Your task to perform on an android device: find photos in the google photos app Image 0: 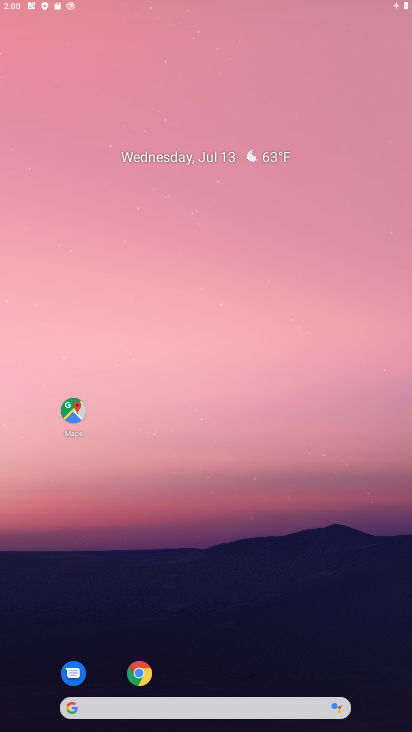
Step 0: drag from (253, 631) to (246, 424)
Your task to perform on an android device: find photos in the google photos app Image 1: 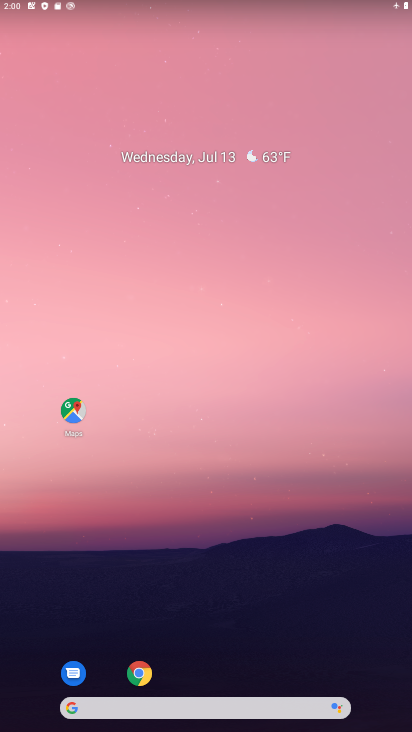
Step 1: drag from (234, 598) to (236, 312)
Your task to perform on an android device: find photos in the google photos app Image 2: 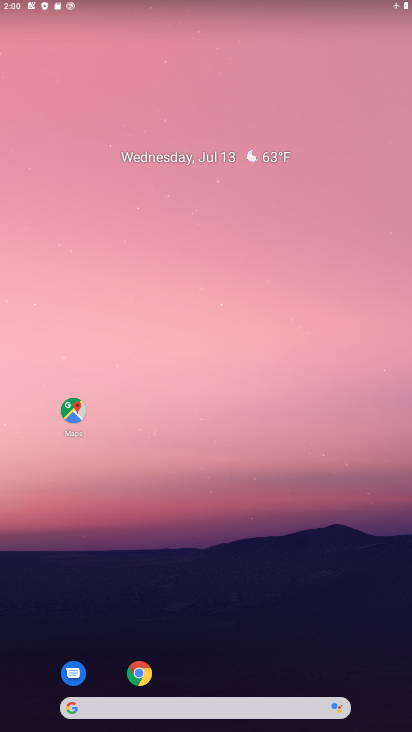
Step 2: drag from (244, 651) to (249, 253)
Your task to perform on an android device: find photos in the google photos app Image 3: 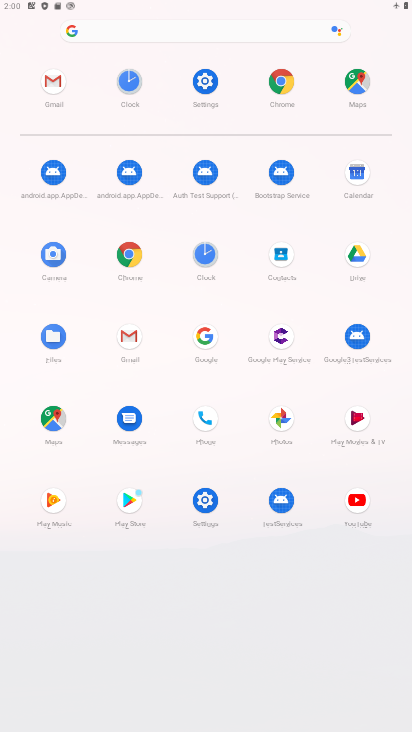
Step 3: click (278, 417)
Your task to perform on an android device: find photos in the google photos app Image 4: 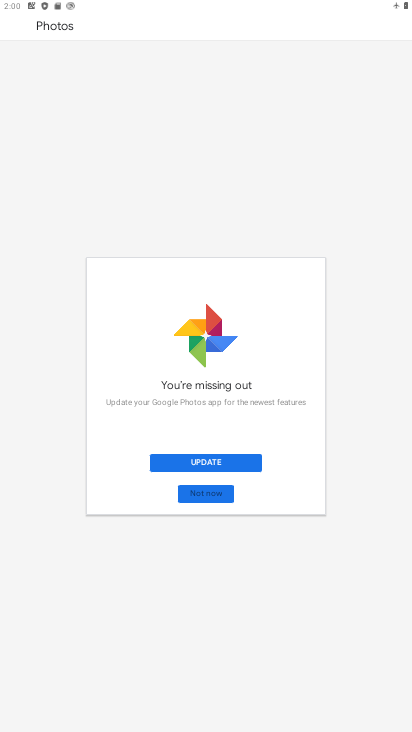
Step 4: click (200, 485)
Your task to perform on an android device: find photos in the google photos app Image 5: 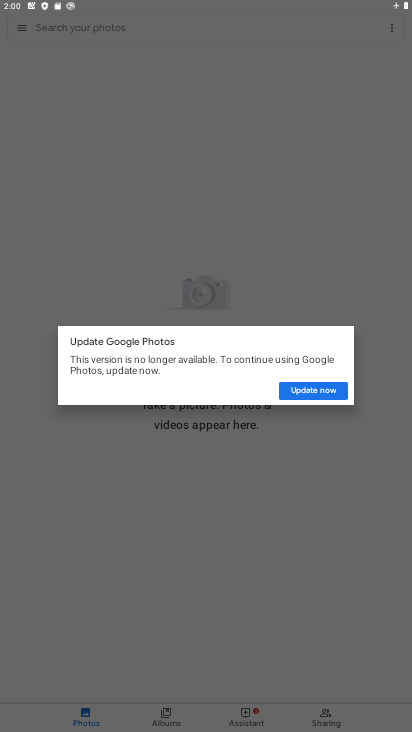
Step 5: click (301, 394)
Your task to perform on an android device: find photos in the google photos app Image 6: 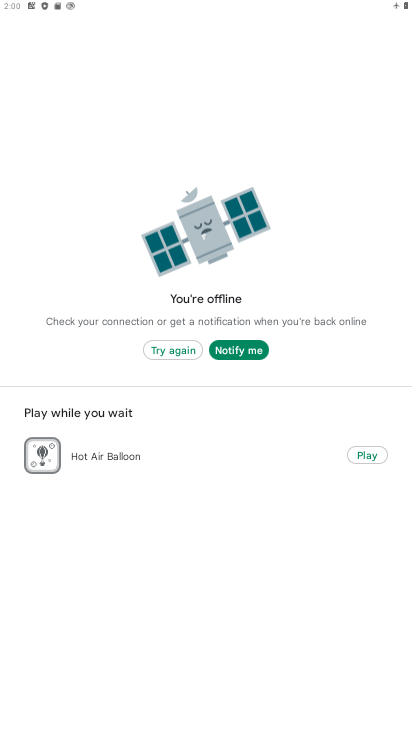
Step 6: press back button
Your task to perform on an android device: find photos in the google photos app Image 7: 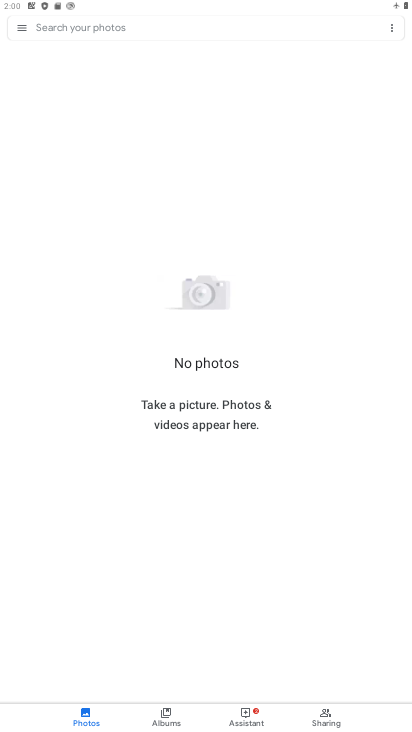
Step 7: click (161, 721)
Your task to perform on an android device: find photos in the google photos app Image 8: 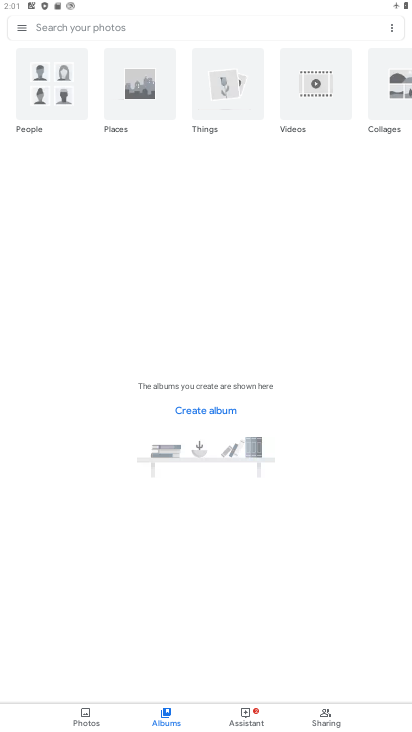
Step 8: task complete